Your task to perform on an android device: turn on bluetooth scan Image 0: 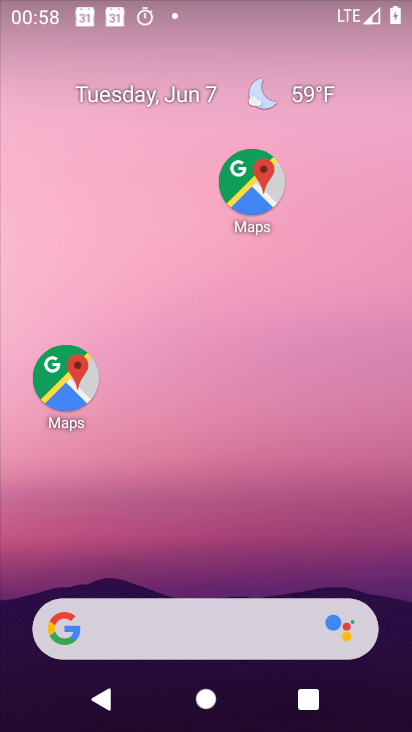
Step 0: drag from (190, 332) to (170, 132)
Your task to perform on an android device: turn on bluetooth scan Image 1: 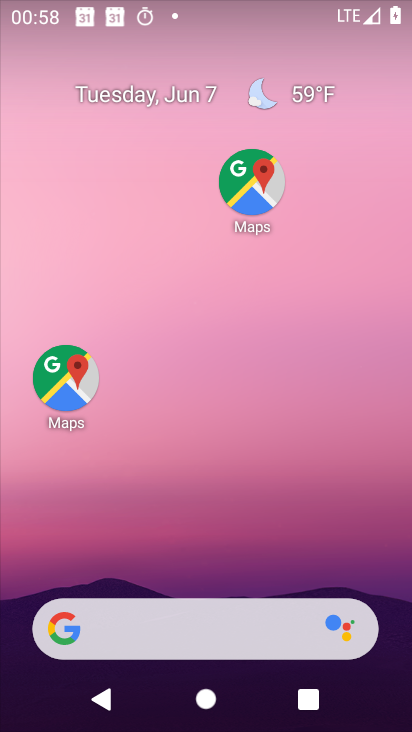
Step 1: drag from (235, 569) to (188, 150)
Your task to perform on an android device: turn on bluetooth scan Image 2: 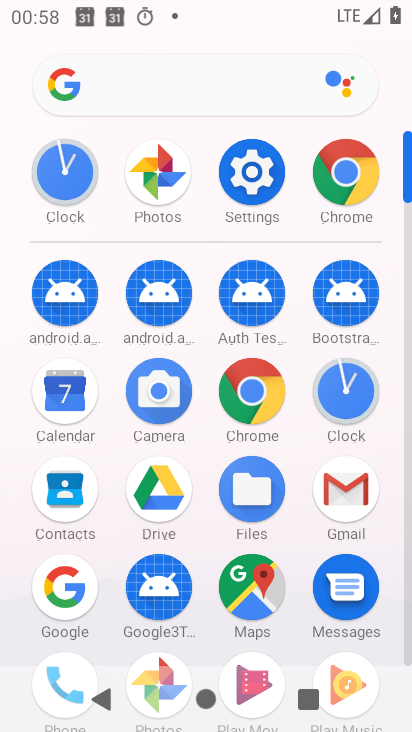
Step 2: click (249, 172)
Your task to perform on an android device: turn on bluetooth scan Image 3: 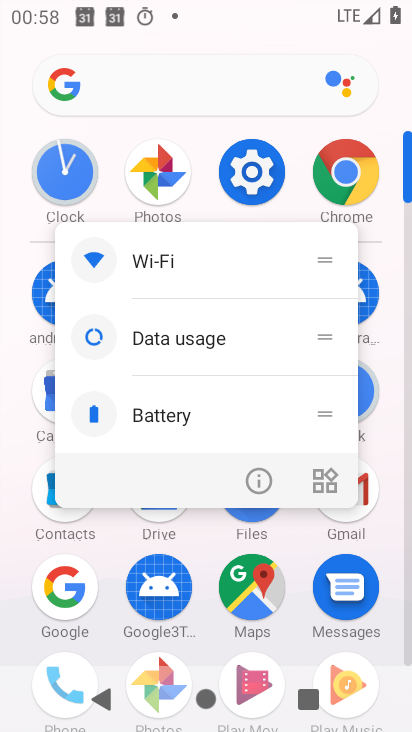
Step 3: click (251, 170)
Your task to perform on an android device: turn on bluetooth scan Image 4: 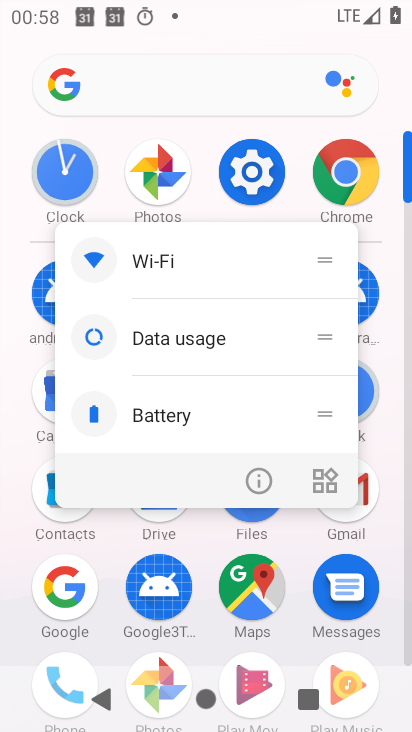
Step 4: click (251, 170)
Your task to perform on an android device: turn on bluetooth scan Image 5: 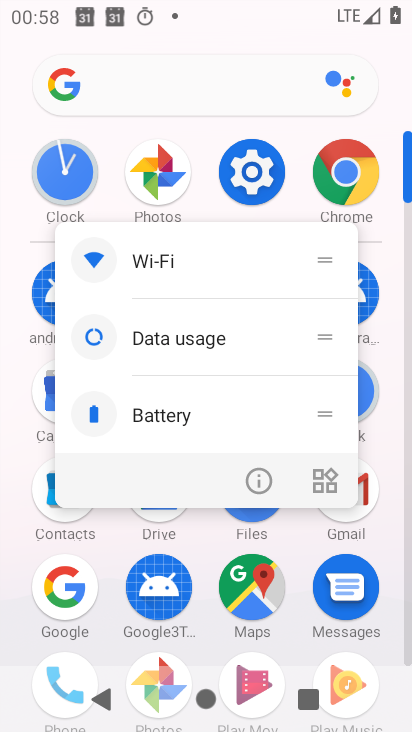
Step 5: click (250, 170)
Your task to perform on an android device: turn on bluetooth scan Image 6: 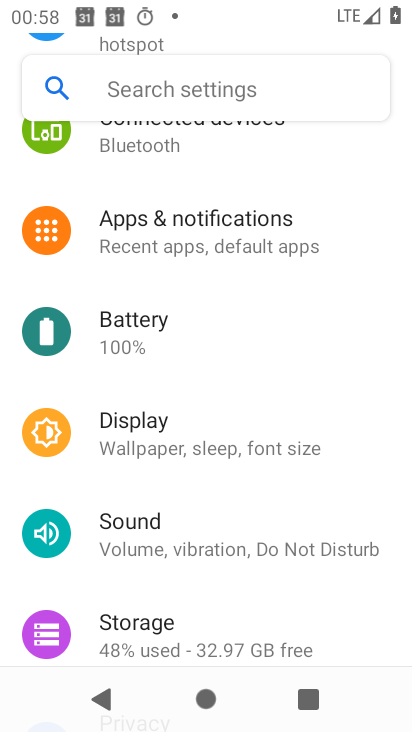
Step 6: drag from (202, 551) to (198, 209)
Your task to perform on an android device: turn on bluetooth scan Image 7: 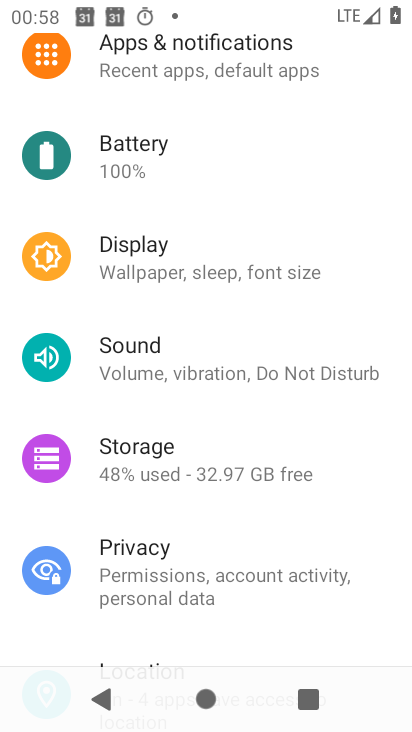
Step 7: drag from (249, 595) to (255, 199)
Your task to perform on an android device: turn on bluetooth scan Image 8: 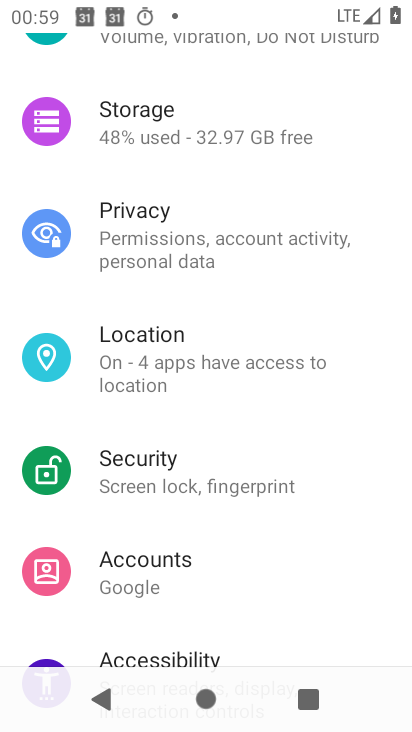
Step 8: click (154, 364)
Your task to perform on an android device: turn on bluetooth scan Image 9: 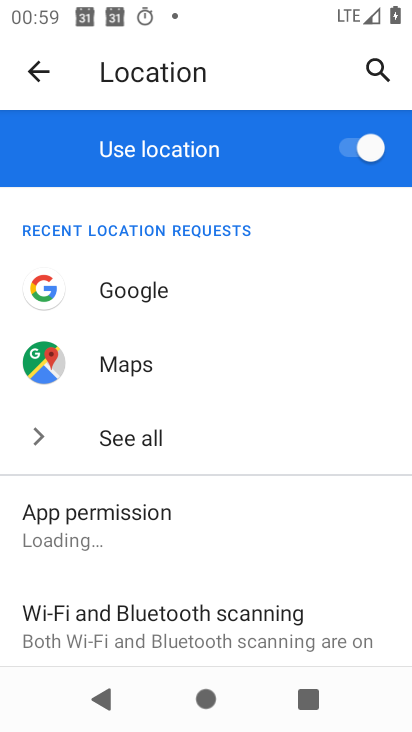
Step 9: click (154, 603)
Your task to perform on an android device: turn on bluetooth scan Image 10: 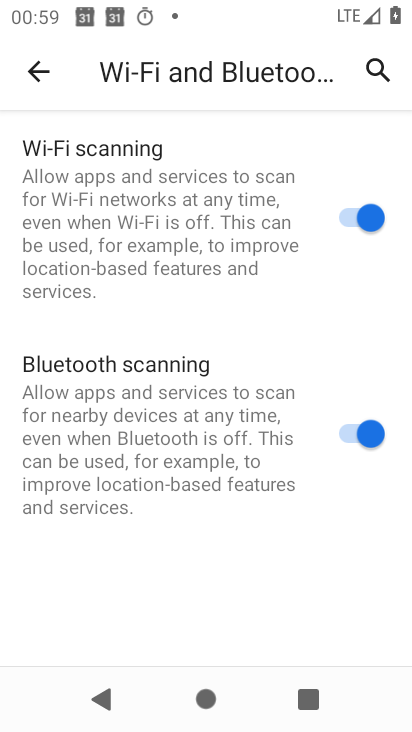
Step 10: task complete